Your task to perform on an android device: Open the calendar and show me this week's events? Image 0: 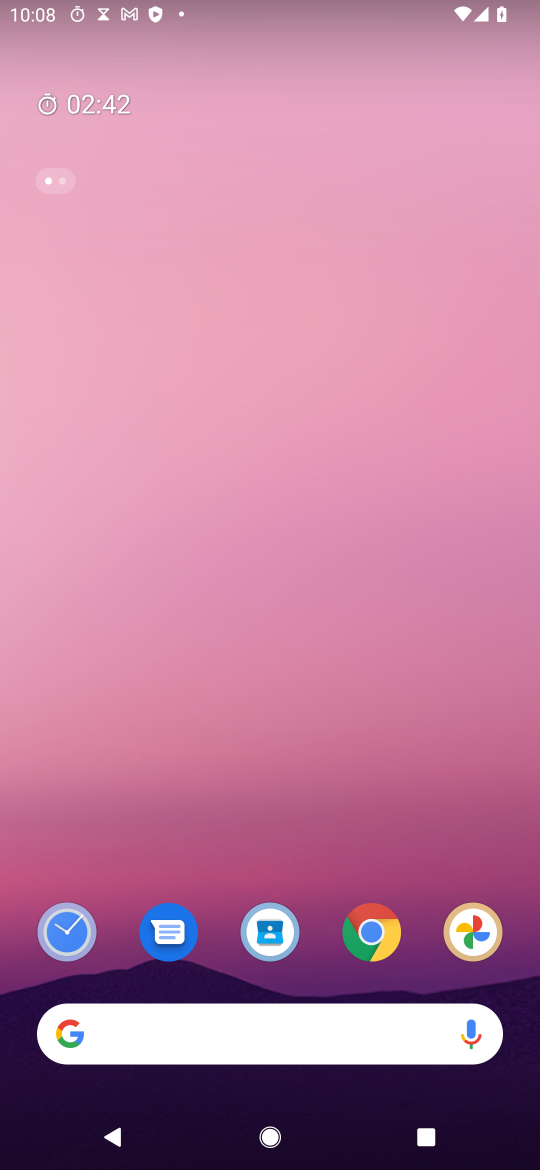
Step 0: drag from (428, 848) to (310, 98)
Your task to perform on an android device: Open the calendar and show me this week's events? Image 1: 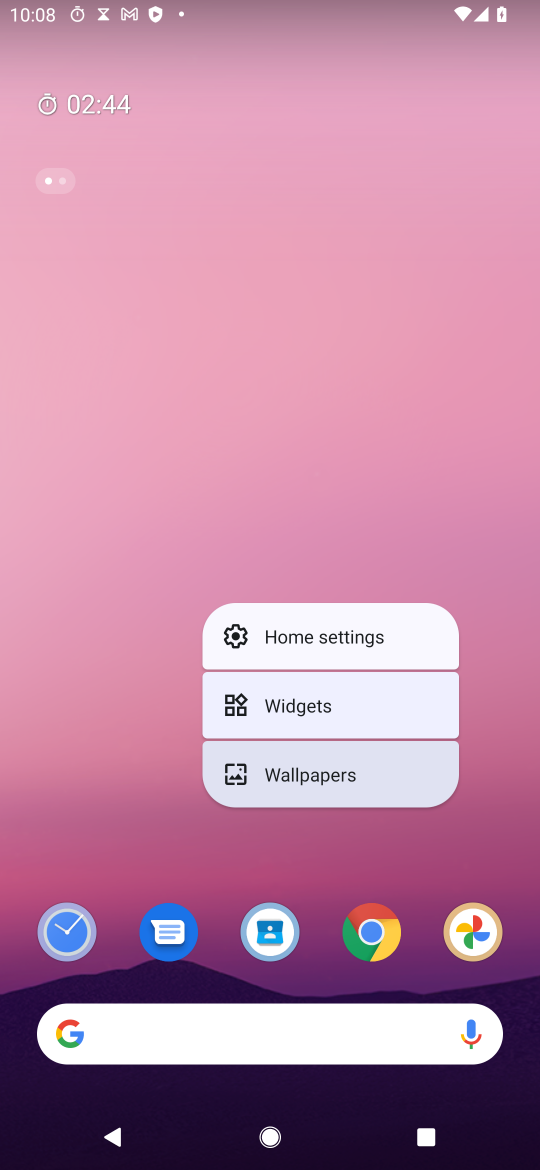
Step 1: press home button
Your task to perform on an android device: Open the calendar and show me this week's events? Image 2: 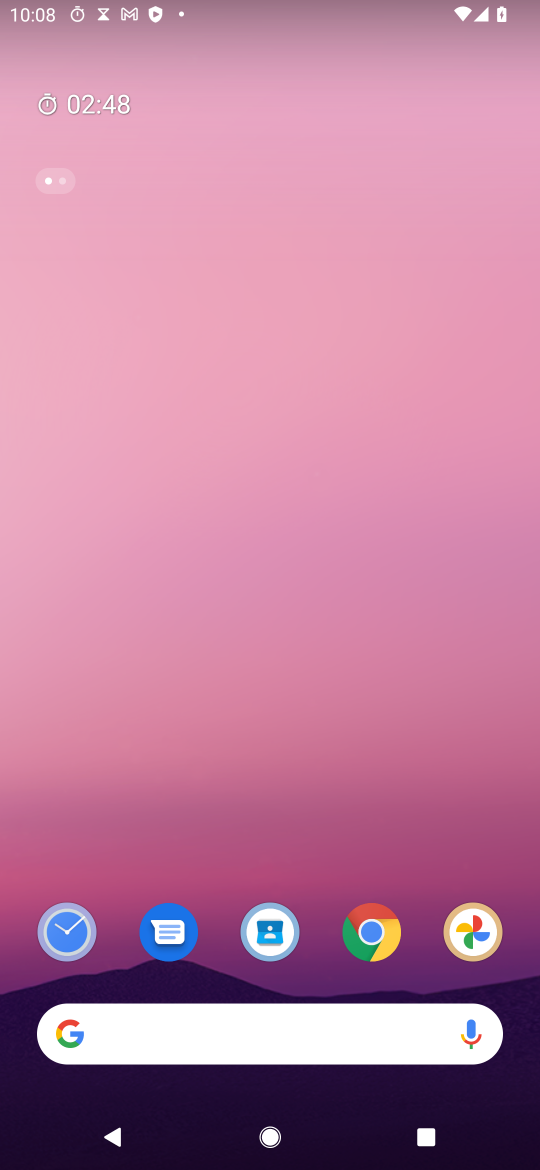
Step 2: drag from (530, 979) to (372, 301)
Your task to perform on an android device: Open the calendar and show me this week's events? Image 3: 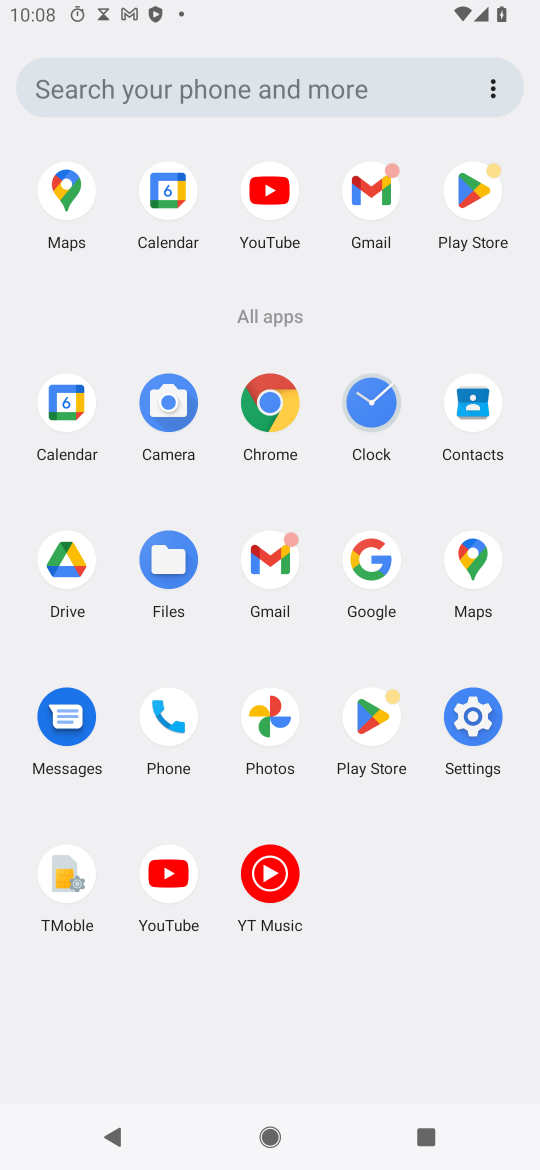
Step 3: click (54, 408)
Your task to perform on an android device: Open the calendar and show me this week's events? Image 4: 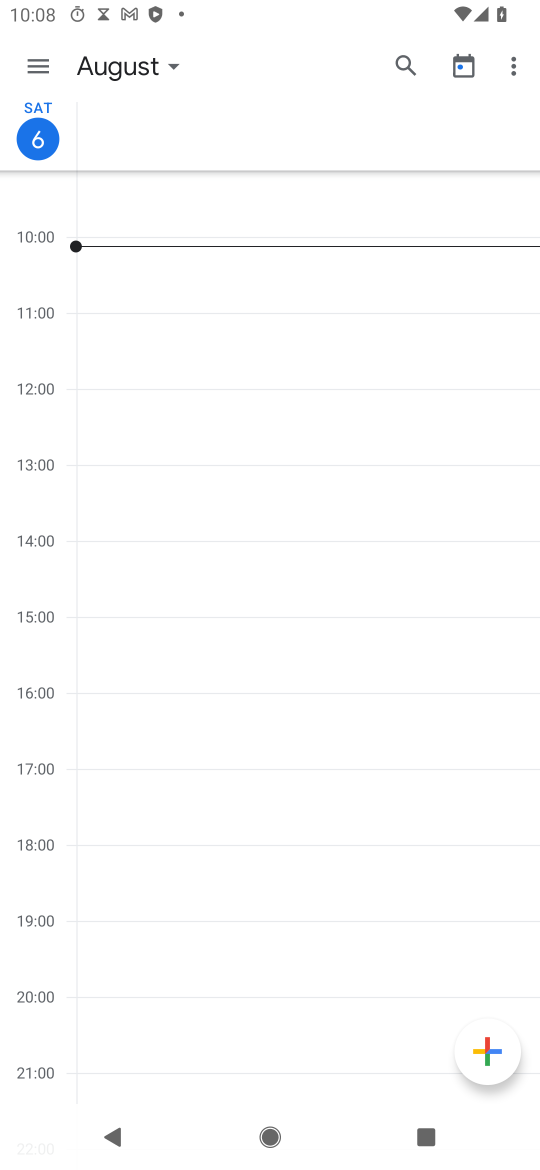
Step 4: click (34, 79)
Your task to perform on an android device: Open the calendar and show me this week's events? Image 5: 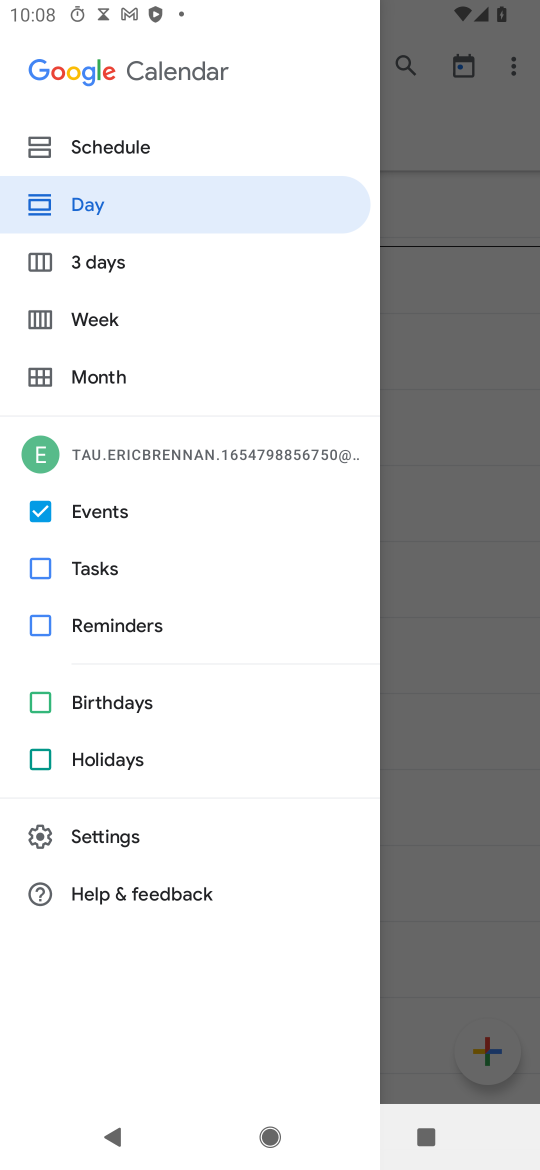
Step 5: click (96, 303)
Your task to perform on an android device: Open the calendar and show me this week's events? Image 6: 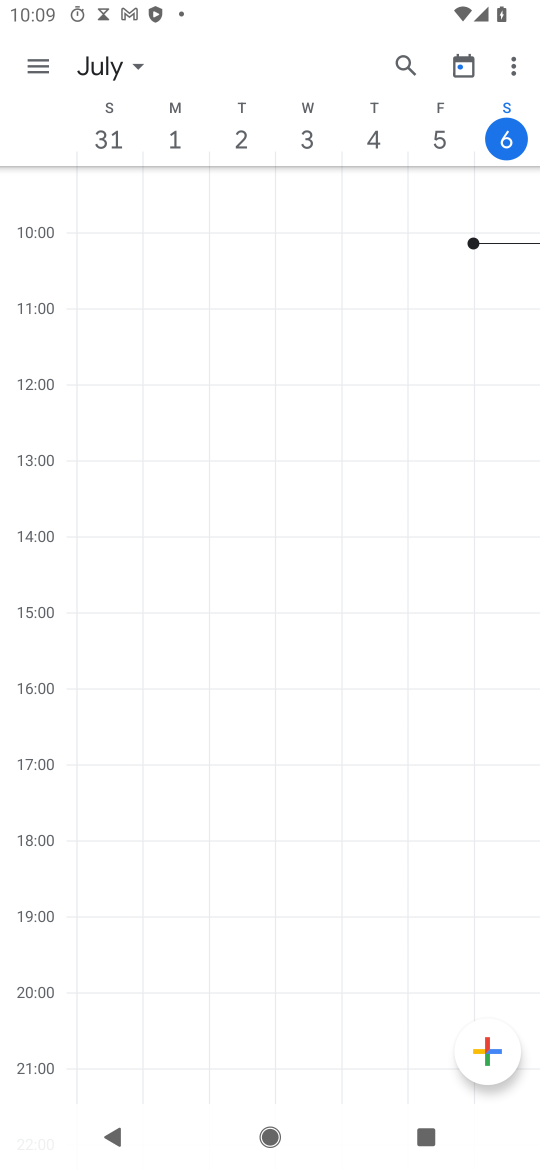
Step 6: task complete